Your task to perform on an android device: search for starred emails in the gmail app Image 0: 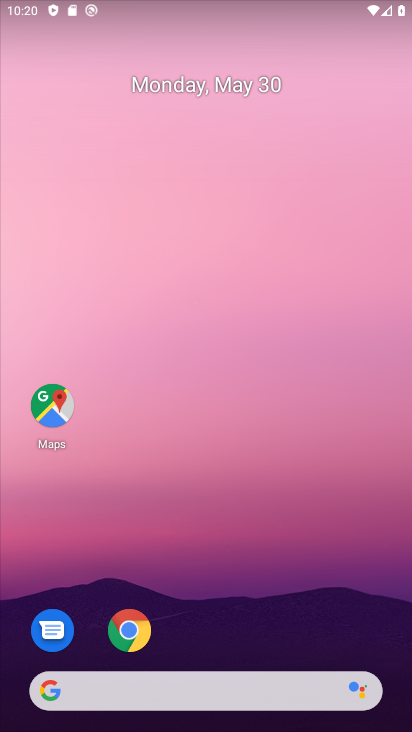
Step 0: drag from (173, 663) to (281, 91)
Your task to perform on an android device: search for starred emails in the gmail app Image 1: 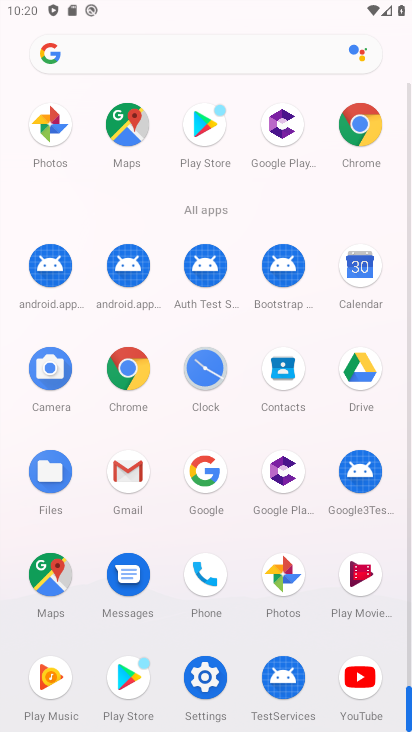
Step 1: click (120, 484)
Your task to perform on an android device: search for starred emails in the gmail app Image 2: 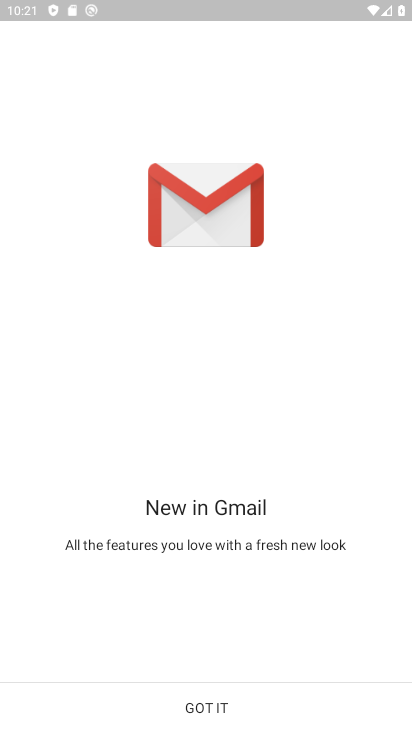
Step 2: click (213, 687)
Your task to perform on an android device: search for starred emails in the gmail app Image 3: 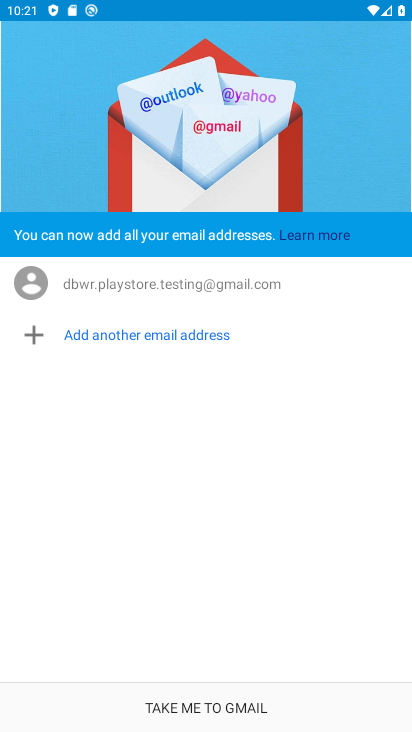
Step 3: click (261, 698)
Your task to perform on an android device: search for starred emails in the gmail app Image 4: 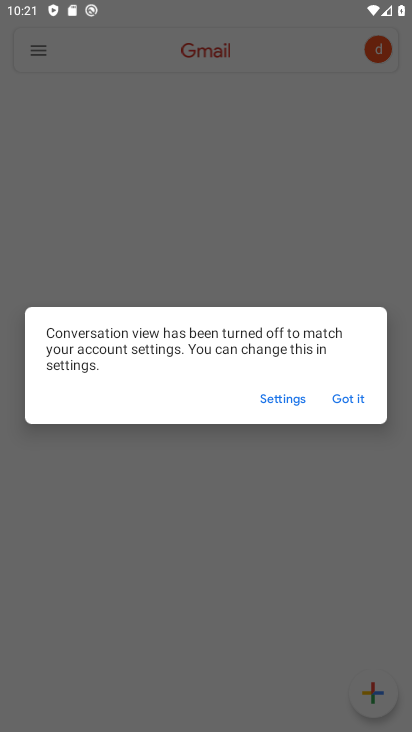
Step 4: click (346, 403)
Your task to perform on an android device: search for starred emails in the gmail app Image 5: 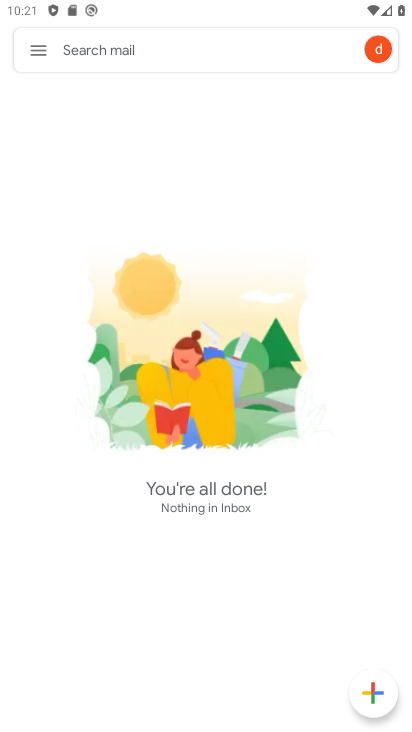
Step 5: click (39, 48)
Your task to perform on an android device: search for starred emails in the gmail app Image 6: 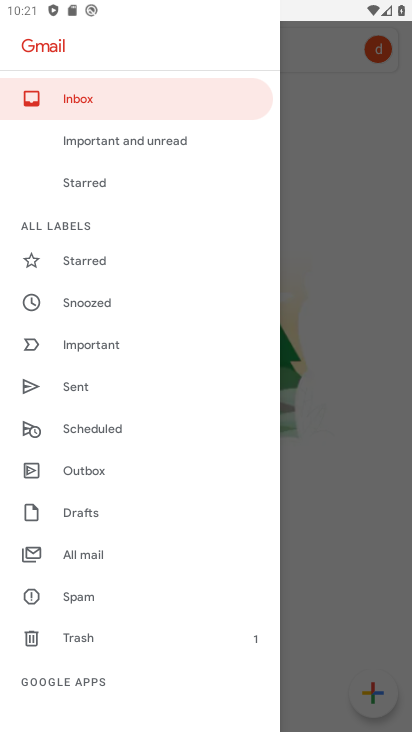
Step 6: click (137, 264)
Your task to perform on an android device: search for starred emails in the gmail app Image 7: 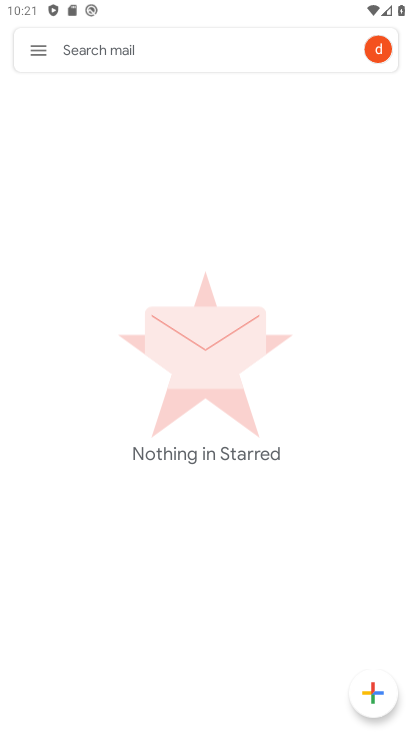
Step 7: task complete